Your task to perform on an android device: check android version Image 0: 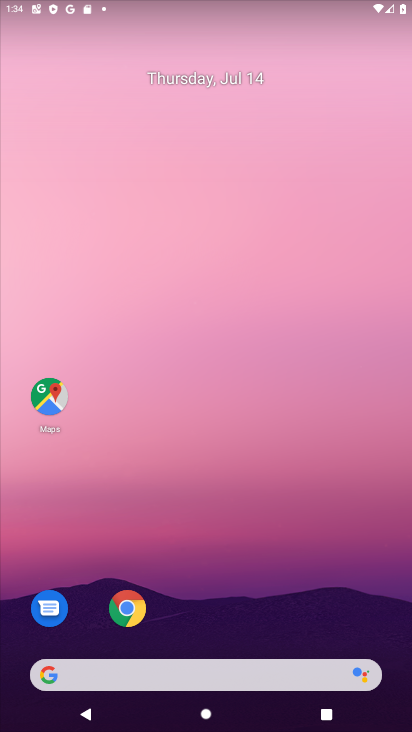
Step 0: drag from (222, 521) to (226, 229)
Your task to perform on an android device: check android version Image 1: 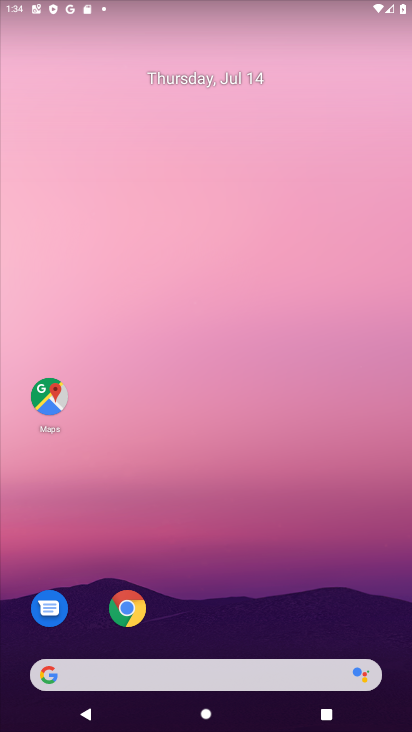
Step 1: drag from (266, 634) to (219, 329)
Your task to perform on an android device: check android version Image 2: 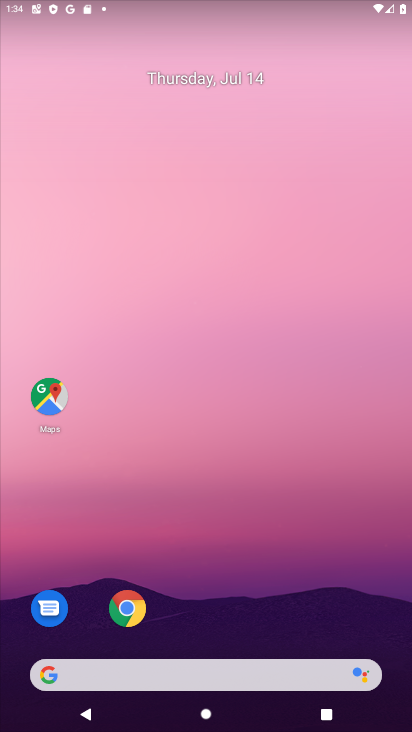
Step 2: drag from (271, 681) to (215, 74)
Your task to perform on an android device: check android version Image 3: 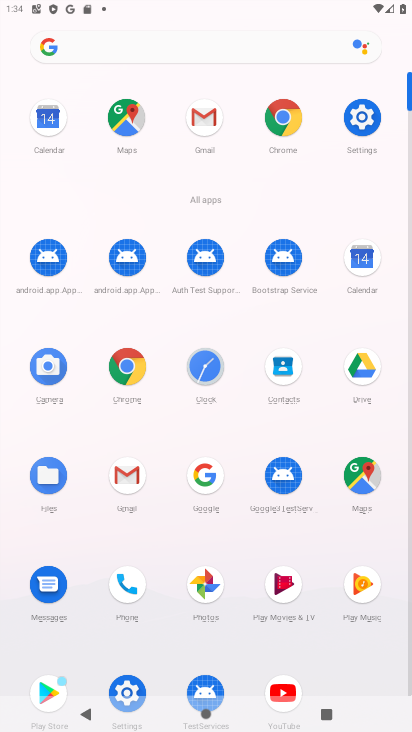
Step 3: click (369, 115)
Your task to perform on an android device: check android version Image 4: 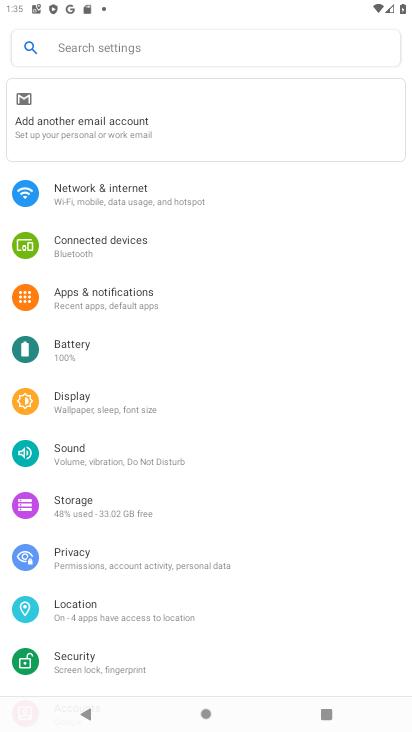
Step 4: click (94, 63)
Your task to perform on an android device: check android version Image 5: 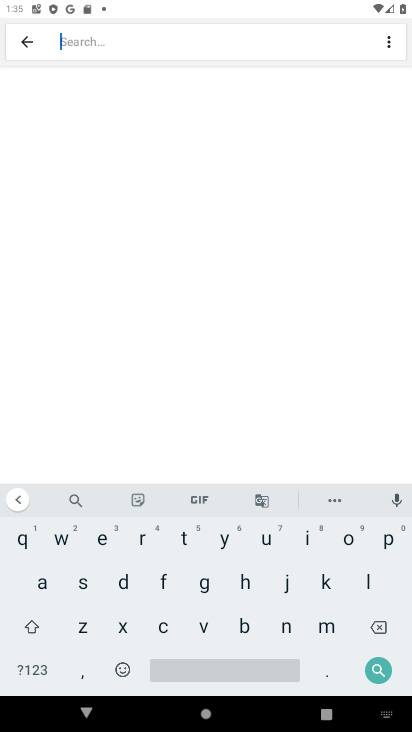
Step 5: click (40, 582)
Your task to perform on an android device: check android version Image 6: 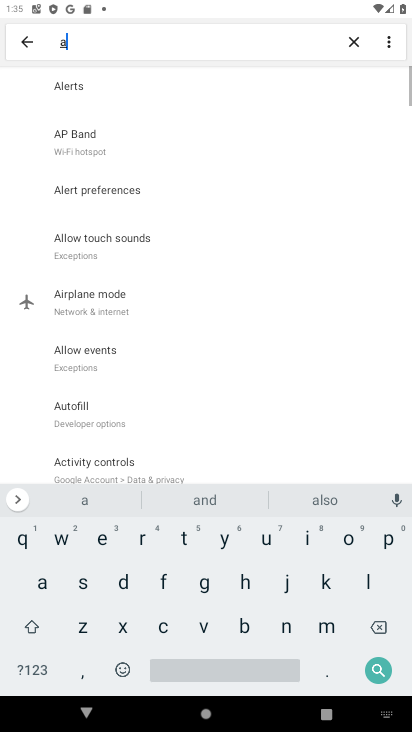
Step 6: click (285, 629)
Your task to perform on an android device: check android version Image 7: 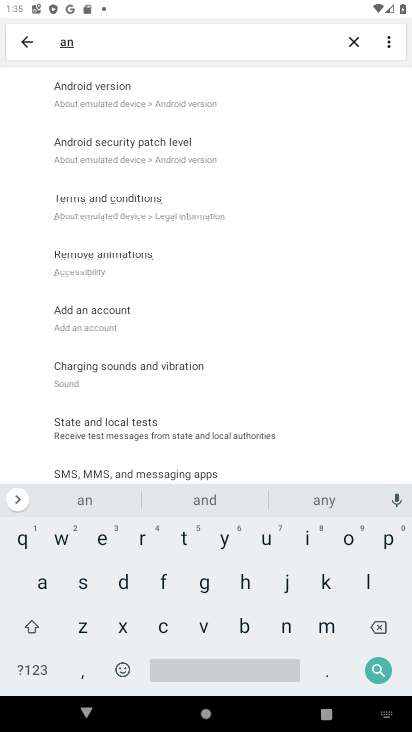
Step 7: click (152, 115)
Your task to perform on an android device: check android version Image 8: 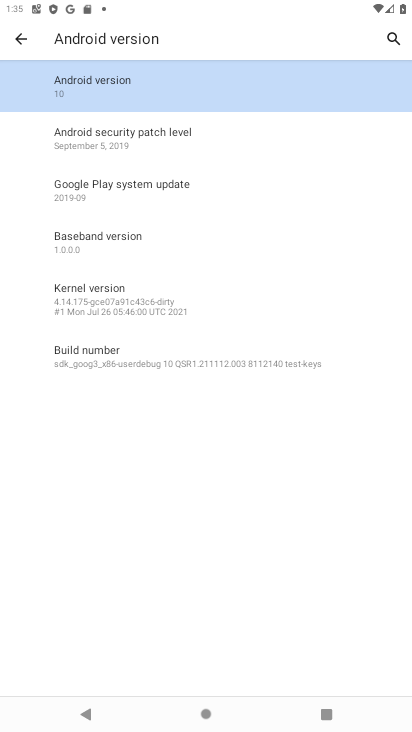
Step 8: task complete